Your task to perform on an android device: turn off smart reply in the gmail app Image 0: 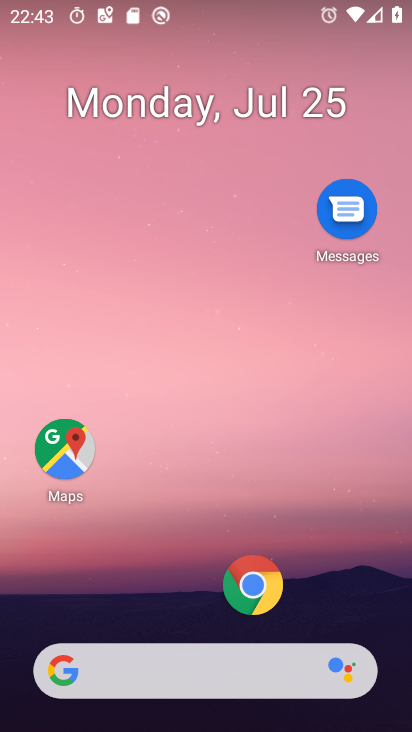
Step 0: drag from (165, 688) to (251, 143)
Your task to perform on an android device: turn off smart reply in the gmail app Image 1: 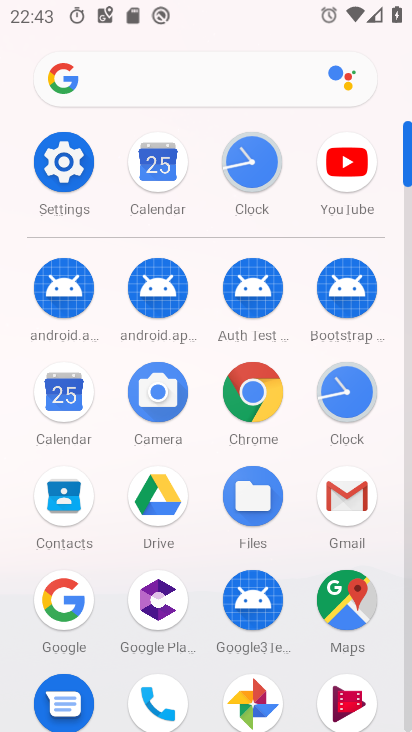
Step 1: click (354, 501)
Your task to perform on an android device: turn off smart reply in the gmail app Image 2: 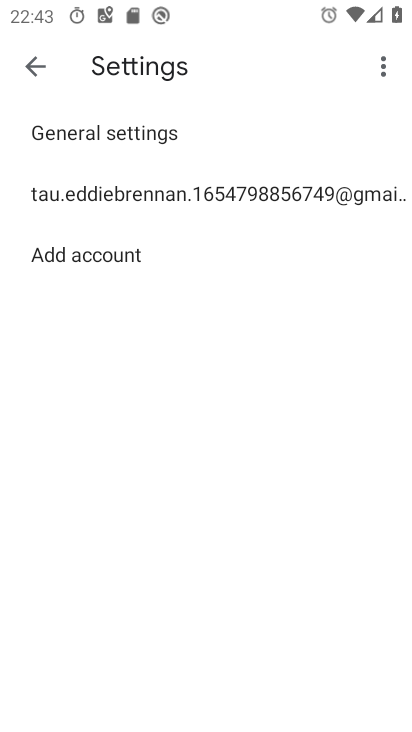
Step 2: click (250, 193)
Your task to perform on an android device: turn off smart reply in the gmail app Image 3: 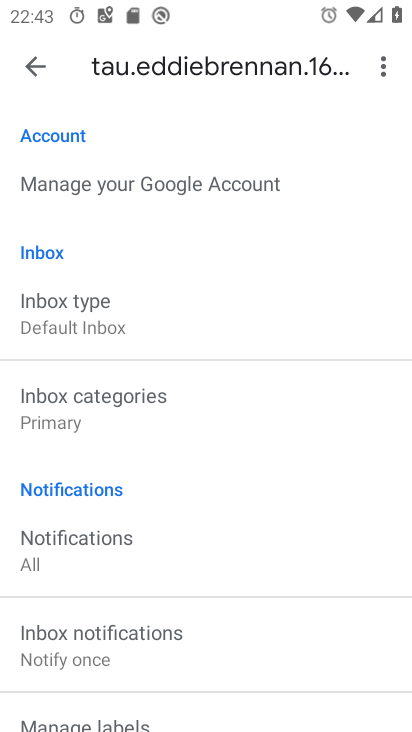
Step 3: drag from (220, 648) to (256, 151)
Your task to perform on an android device: turn off smart reply in the gmail app Image 4: 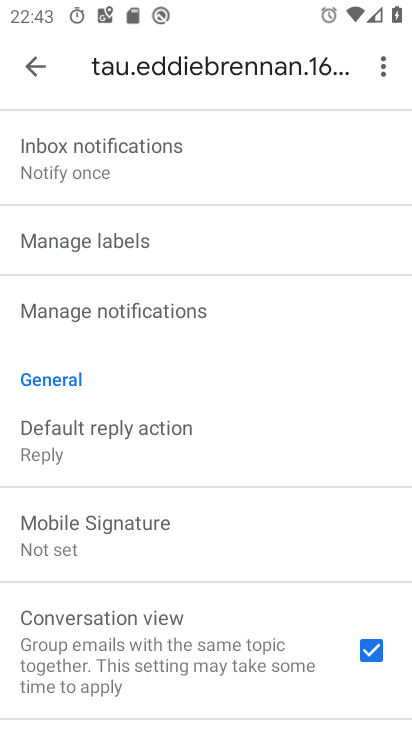
Step 4: drag from (227, 634) to (357, 97)
Your task to perform on an android device: turn off smart reply in the gmail app Image 5: 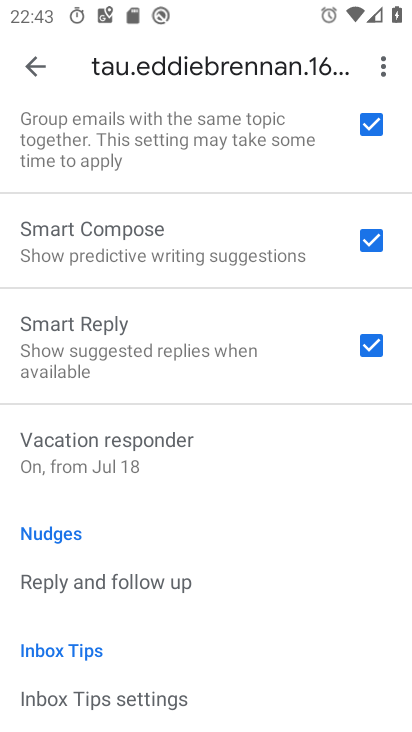
Step 5: click (366, 343)
Your task to perform on an android device: turn off smart reply in the gmail app Image 6: 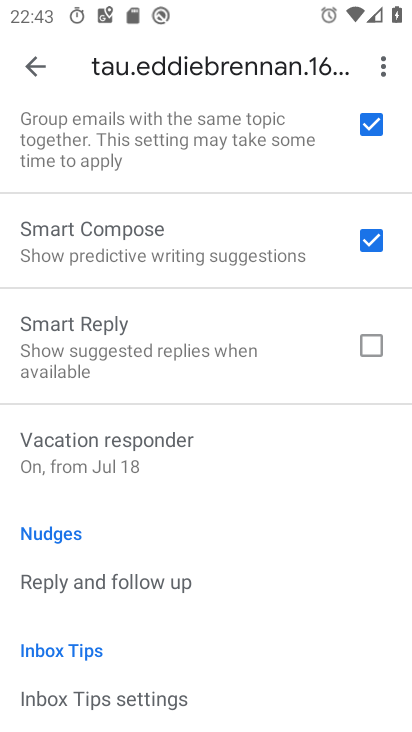
Step 6: task complete